Your task to perform on an android device: toggle notifications settings in the gmail app Image 0: 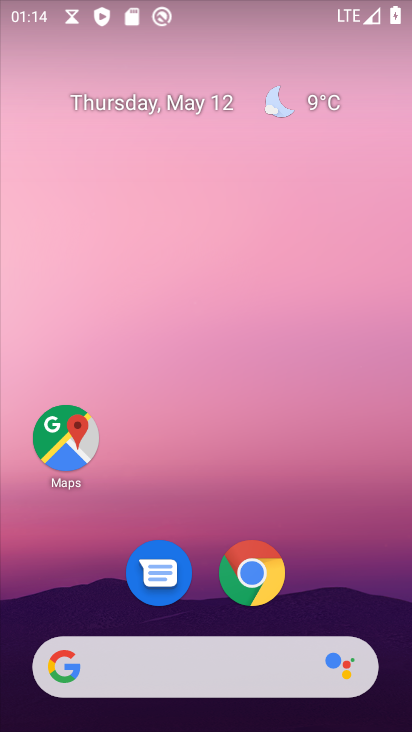
Step 0: drag from (338, 587) to (344, 187)
Your task to perform on an android device: toggle notifications settings in the gmail app Image 1: 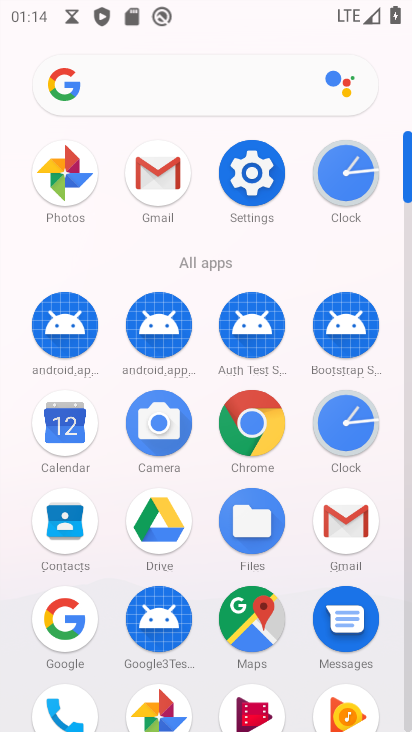
Step 1: click (333, 528)
Your task to perform on an android device: toggle notifications settings in the gmail app Image 2: 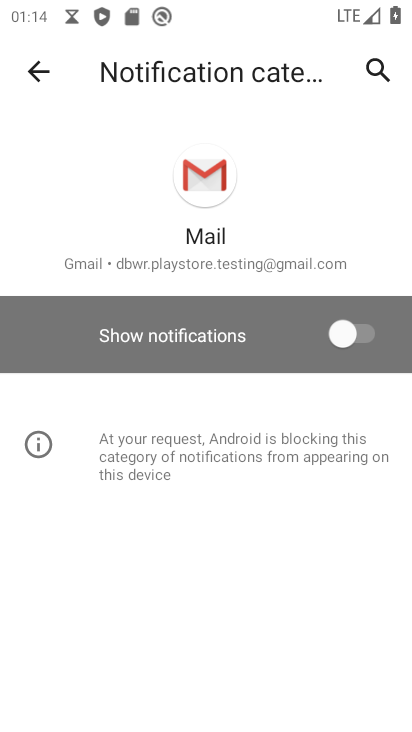
Step 2: click (330, 312)
Your task to perform on an android device: toggle notifications settings in the gmail app Image 3: 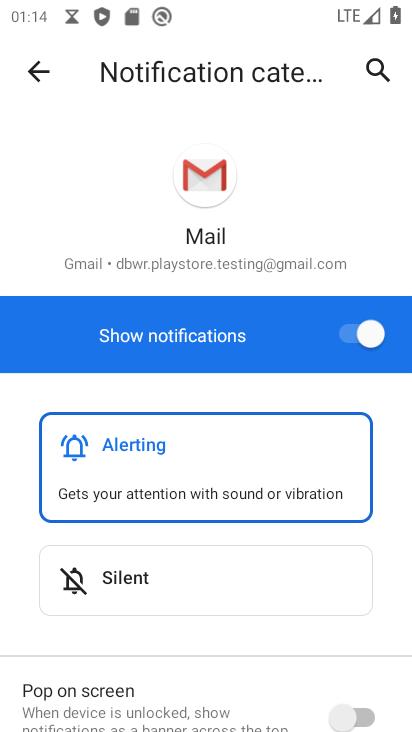
Step 3: task complete